Your task to perform on an android device: move a message to another label in the gmail app Image 0: 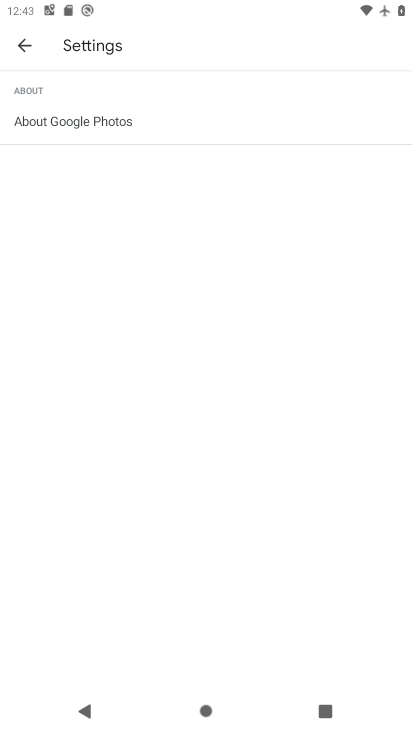
Step 0: press home button
Your task to perform on an android device: move a message to another label in the gmail app Image 1: 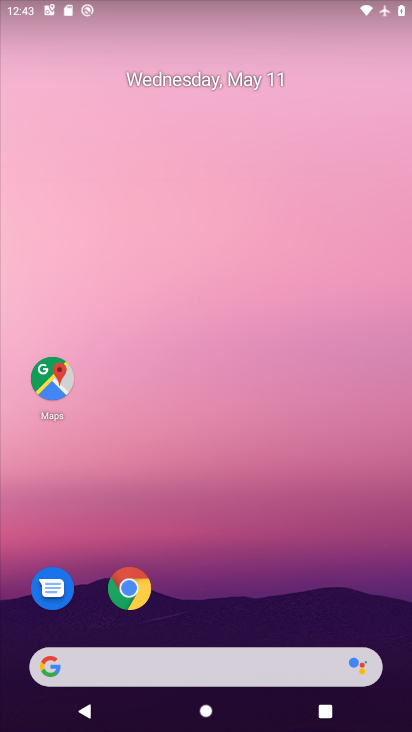
Step 1: drag from (223, 642) to (223, 256)
Your task to perform on an android device: move a message to another label in the gmail app Image 2: 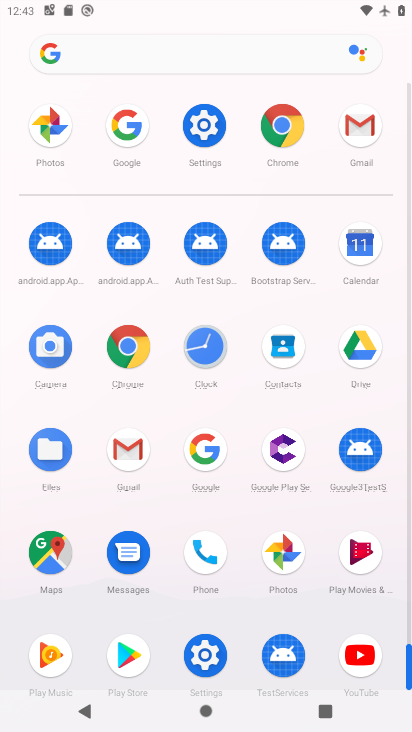
Step 2: click (355, 131)
Your task to perform on an android device: move a message to another label in the gmail app Image 3: 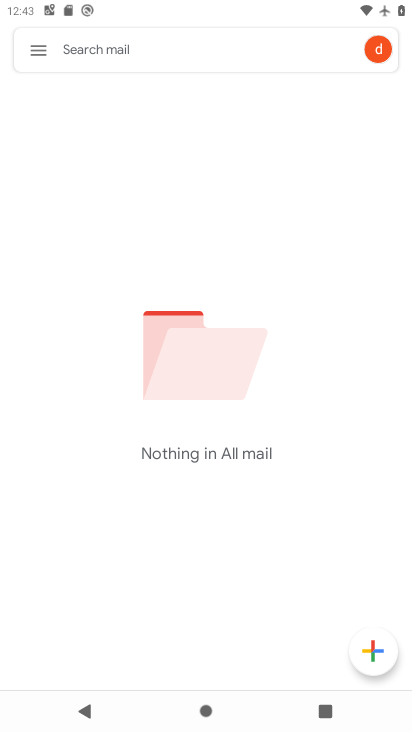
Step 3: click (32, 51)
Your task to perform on an android device: move a message to another label in the gmail app Image 4: 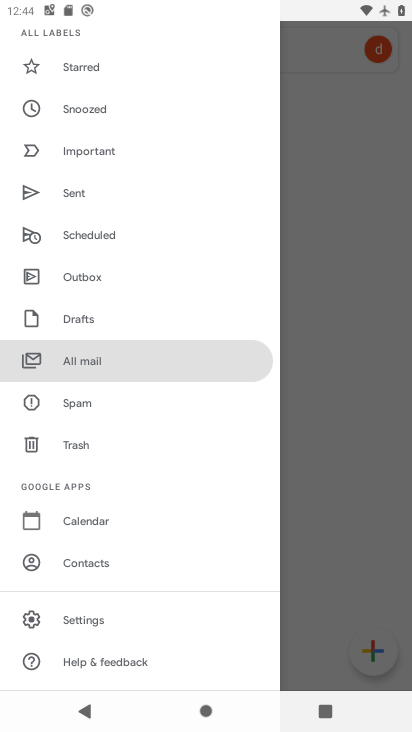
Step 4: task complete